Your task to perform on an android device: open app "Google Find My Device" Image 0: 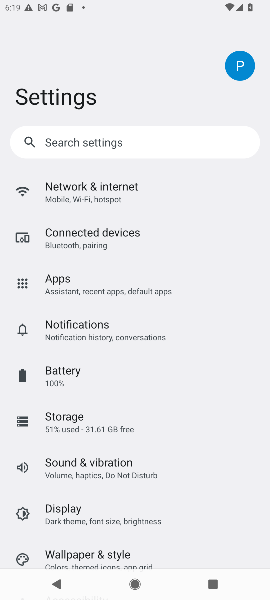
Step 0: press home button
Your task to perform on an android device: open app "Google Find My Device" Image 1: 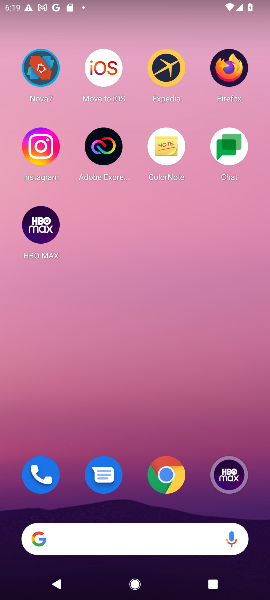
Step 1: drag from (73, 530) to (103, 224)
Your task to perform on an android device: open app "Google Find My Device" Image 2: 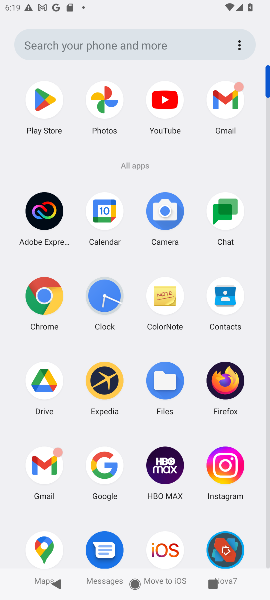
Step 2: click (46, 93)
Your task to perform on an android device: open app "Google Find My Device" Image 3: 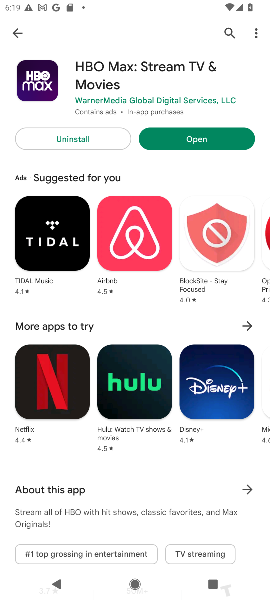
Step 3: click (233, 30)
Your task to perform on an android device: open app "Google Find My Device" Image 4: 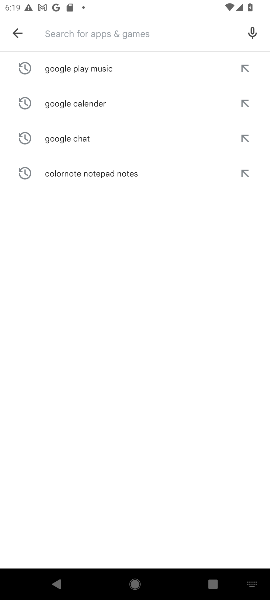
Step 4: type "Google Find My Device"
Your task to perform on an android device: open app "Google Find My Device" Image 5: 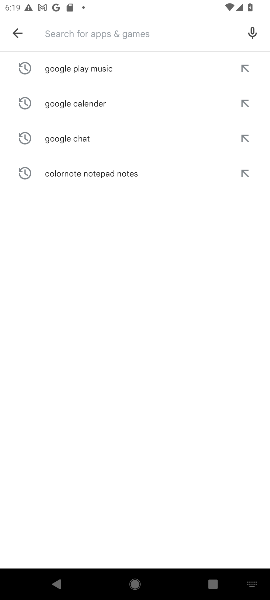
Step 5: click (100, 31)
Your task to perform on an android device: open app "Google Find My Device" Image 6: 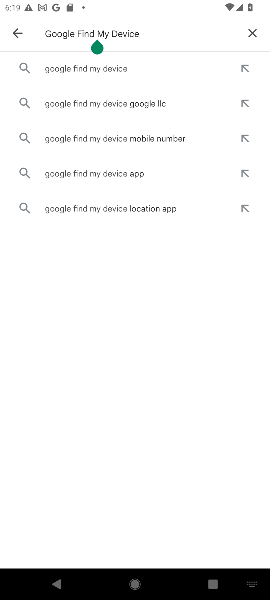
Step 6: click (69, 62)
Your task to perform on an android device: open app "Google Find My Device" Image 7: 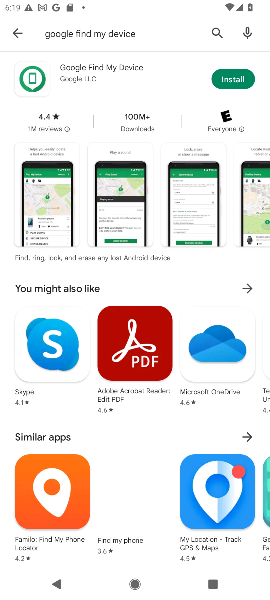
Step 7: click (234, 78)
Your task to perform on an android device: open app "Google Find My Device" Image 8: 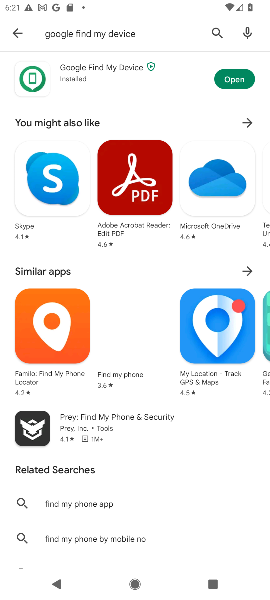
Step 8: click (227, 81)
Your task to perform on an android device: open app "Google Find My Device" Image 9: 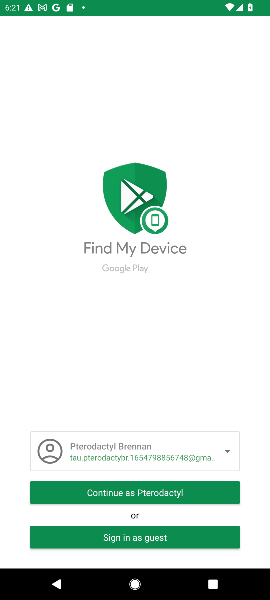
Step 9: task complete